Your task to perform on an android device: toggle notification dots Image 0: 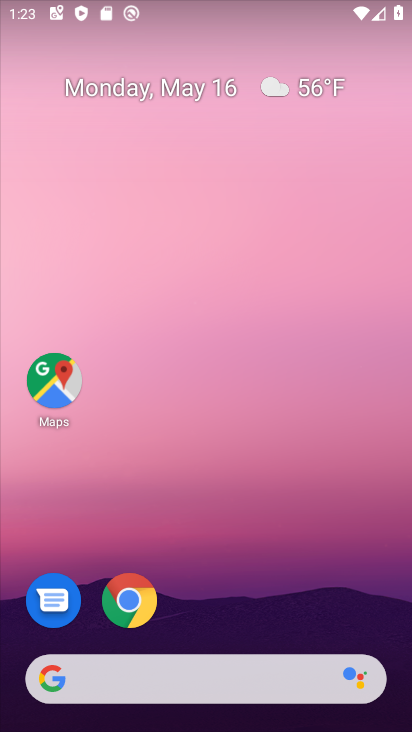
Step 0: drag from (277, 603) to (290, 142)
Your task to perform on an android device: toggle notification dots Image 1: 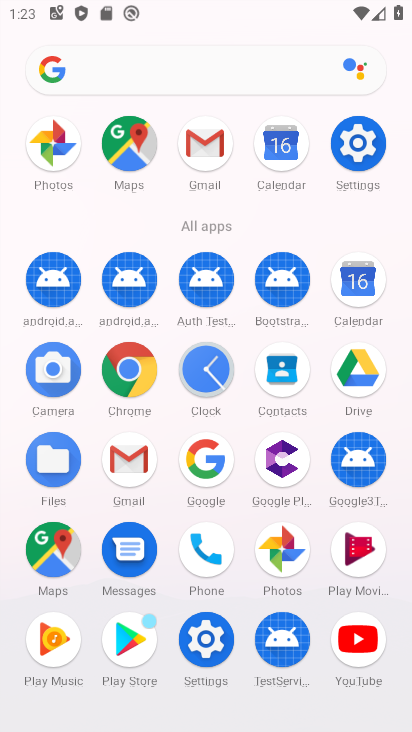
Step 1: click (357, 154)
Your task to perform on an android device: toggle notification dots Image 2: 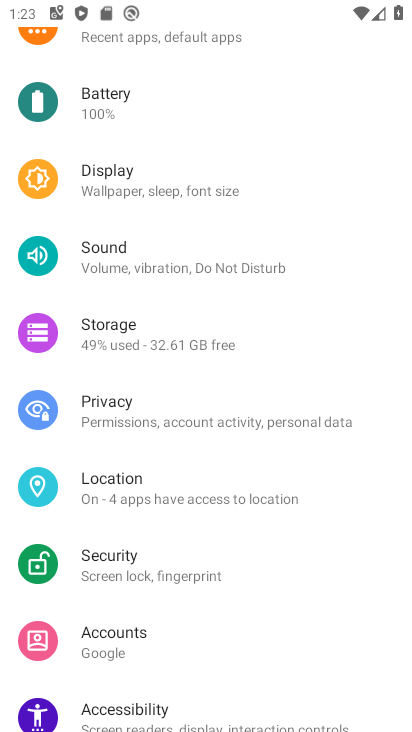
Step 2: drag from (210, 89) to (209, 459)
Your task to perform on an android device: toggle notification dots Image 3: 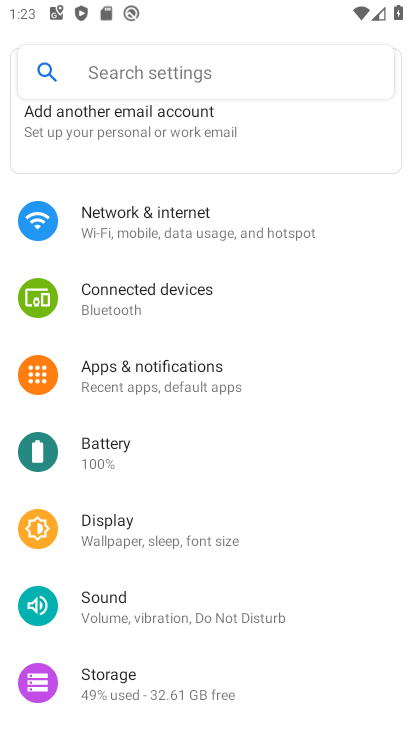
Step 3: click (181, 383)
Your task to perform on an android device: toggle notification dots Image 4: 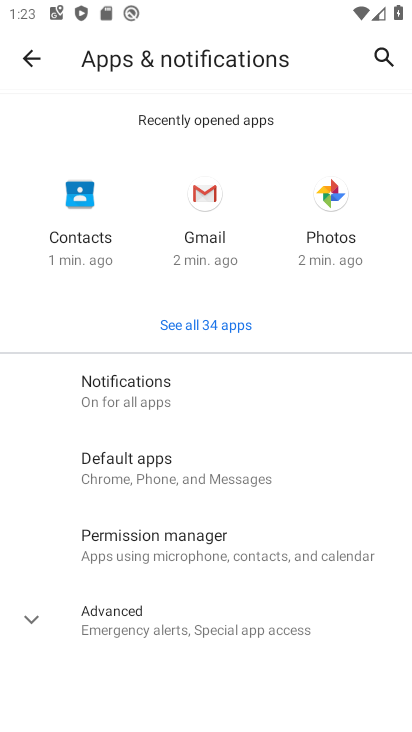
Step 4: click (171, 399)
Your task to perform on an android device: toggle notification dots Image 5: 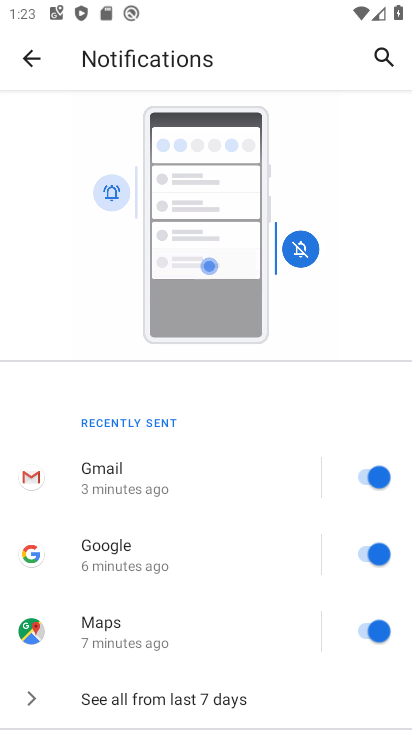
Step 5: drag from (193, 661) to (201, 238)
Your task to perform on an android device: toggle notification dots Image 6: 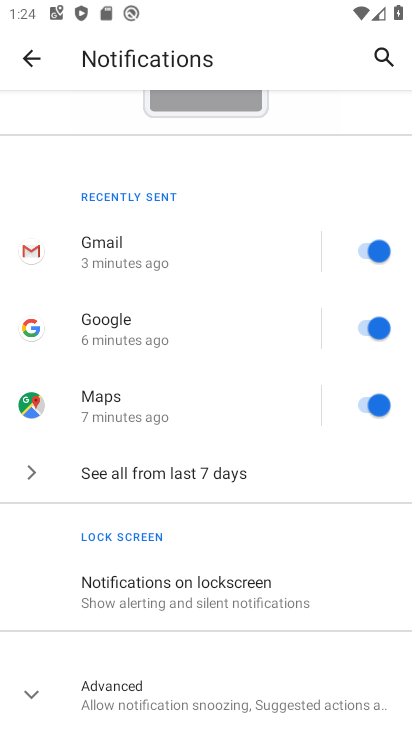
Step 6: click (198, 703)
Your task to perform on an android device: toggle notification dots Image 7: 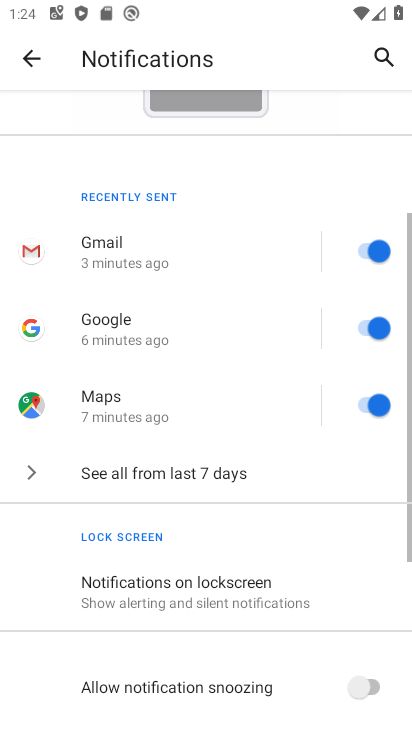
Step 7: drag from (210, 642) to (189, 129)
Your task to perform on an android device: toggle notification dots Image 8: 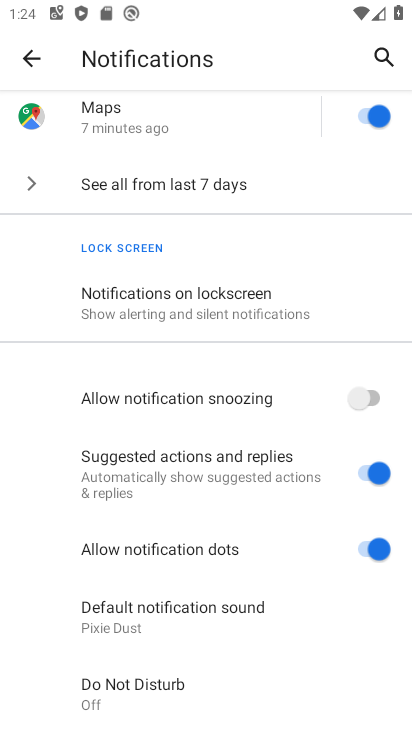
Step 8: click (375, 540)
Your task to perform on an android device: toggle notification dots Image 9: 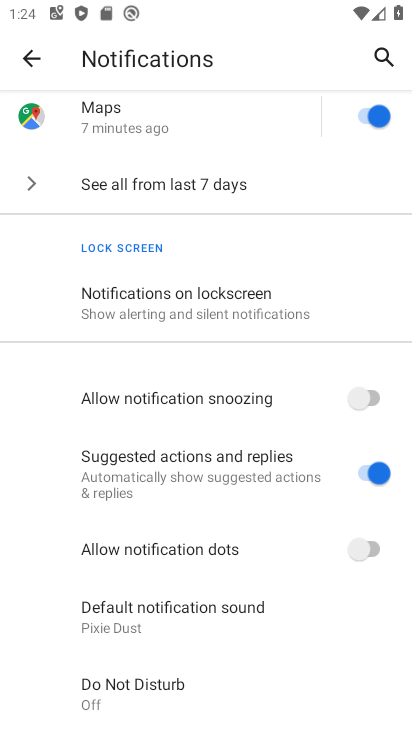
Step 9: task complete